Your task to perform on an android device: Check the best rated table lamp on Crate and Barrel Image 0: 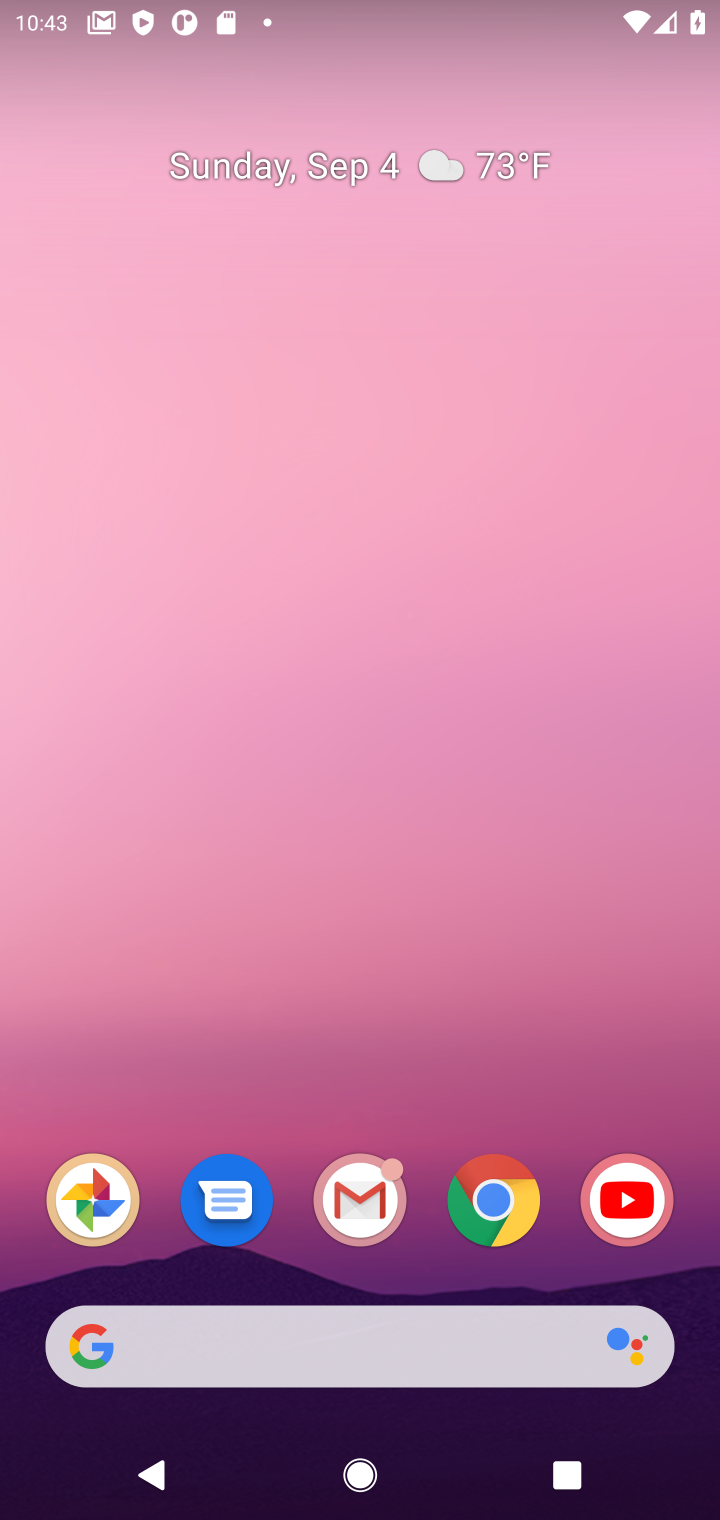
Step 0: drag from (397, 1290) to (476, 397)
Your task to perform on an android device: Check the best rated table lamp on Crate and Barrel Image 1: 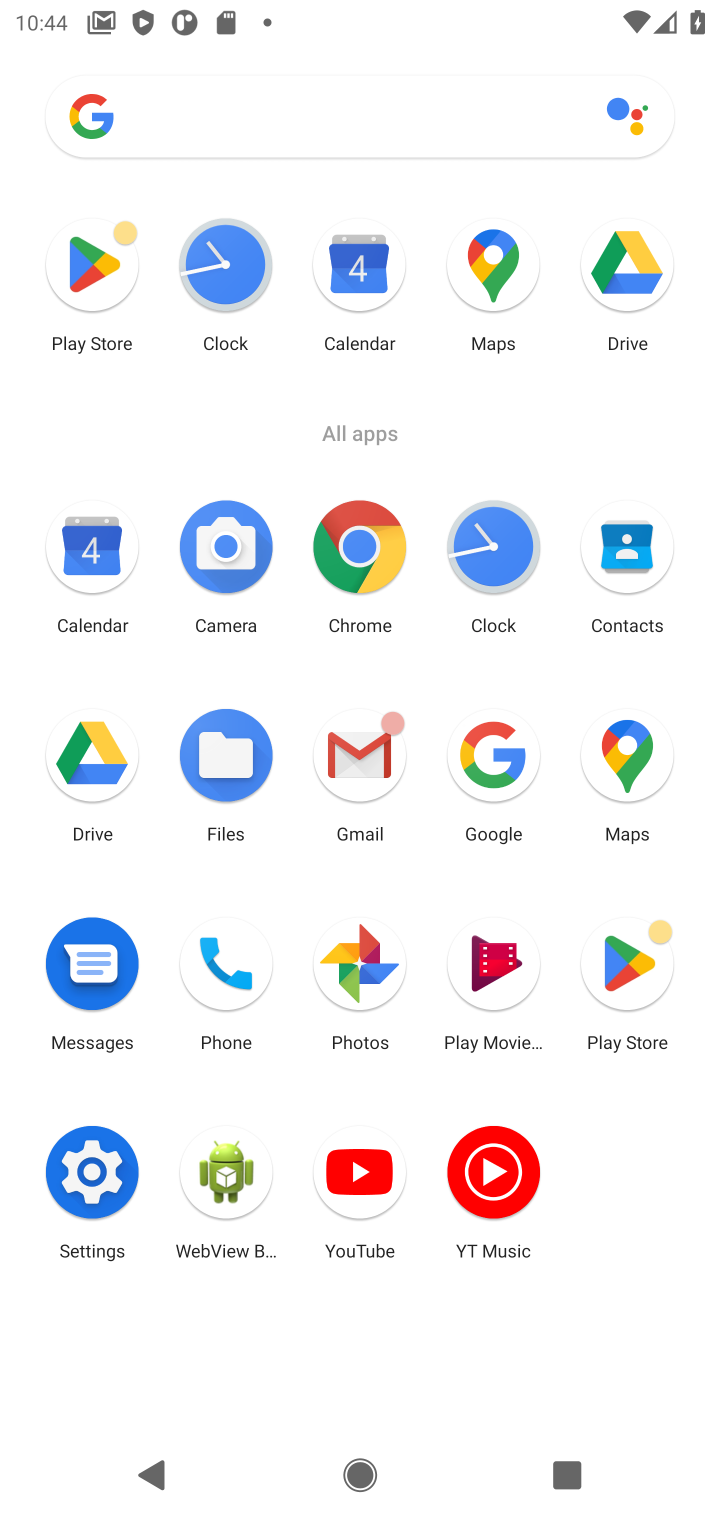
Step 1: click (365, 577)
Your task to perform on an android device: Check the best rated table lamp on Crate and Barrel Image 2: 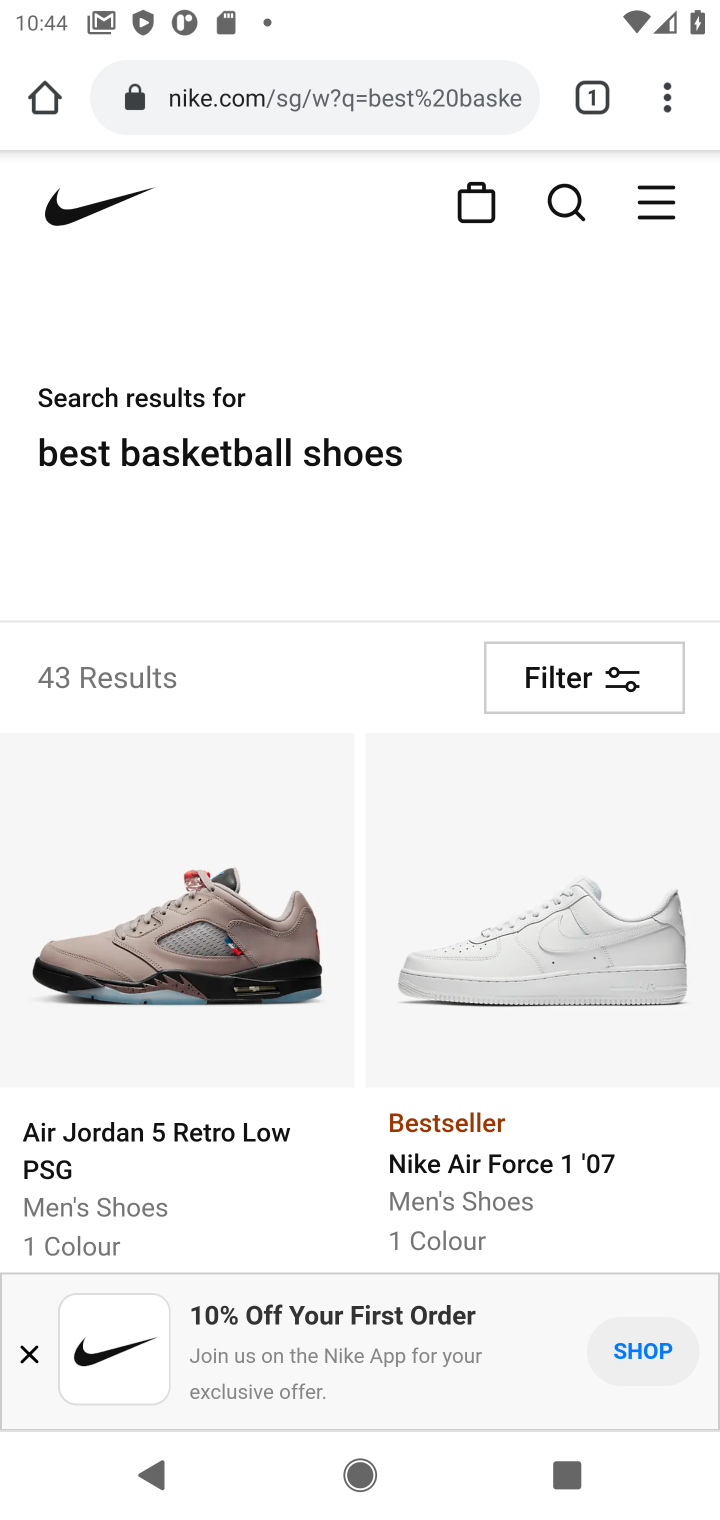
Step 2: click (244, 101)
Your task to perform on an android device: Check the best rated table lamp on Crate and Barrel Image 3: 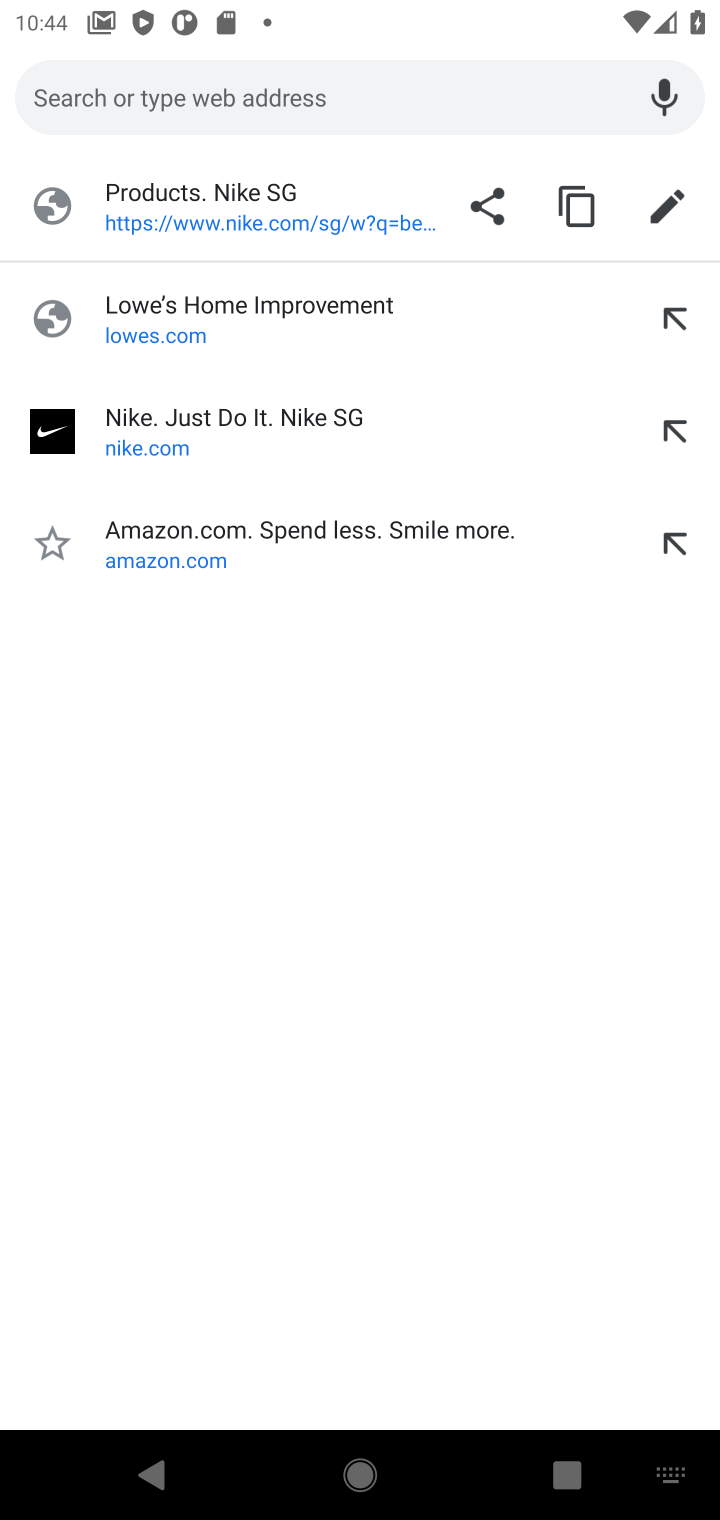
Step 3: type "crate and barrel"
Your task to perform on an android device: Check the best rated table lamp on Crate and Barrel Image 4: 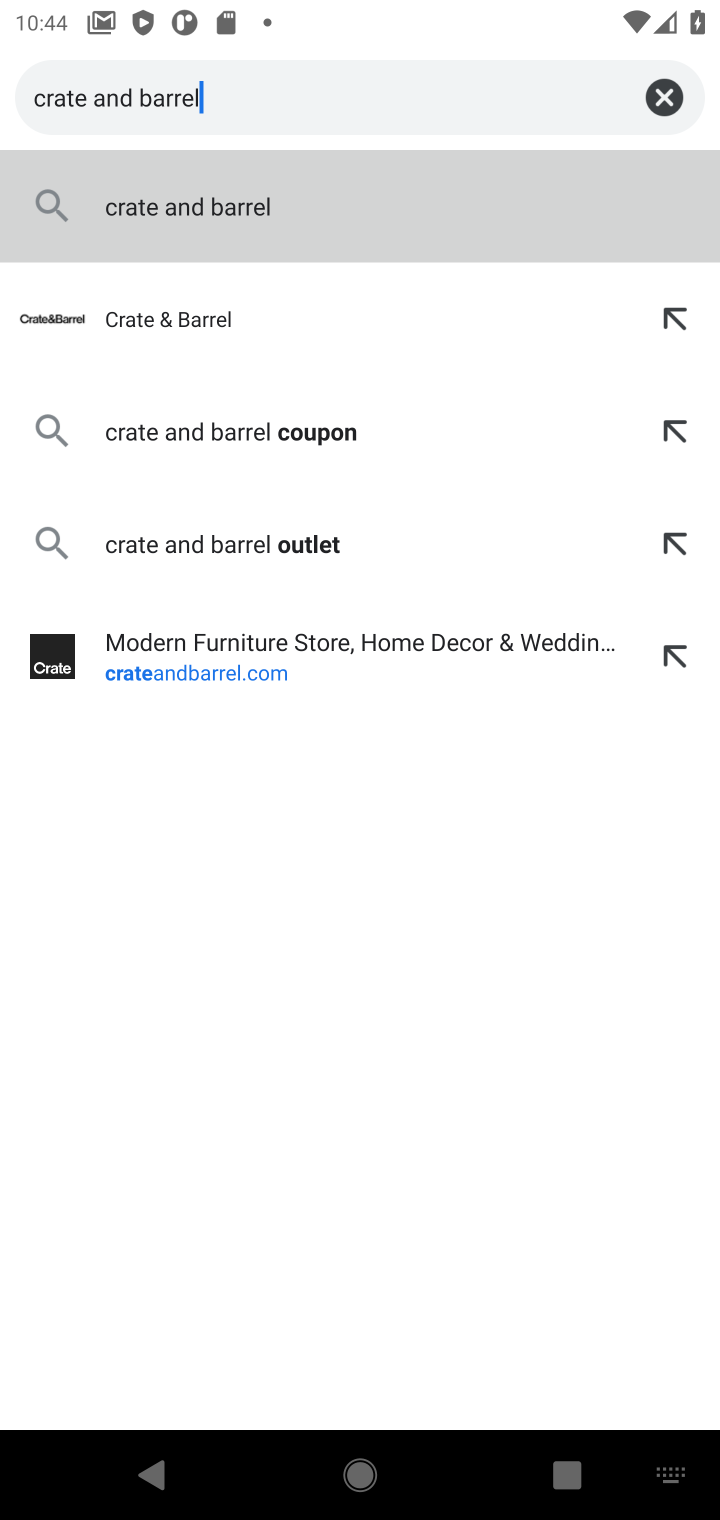
Step 4: click (520, 320)
Your task to perform on an android device: Check the best rated table lamp on Crate and Barrel Image 5: 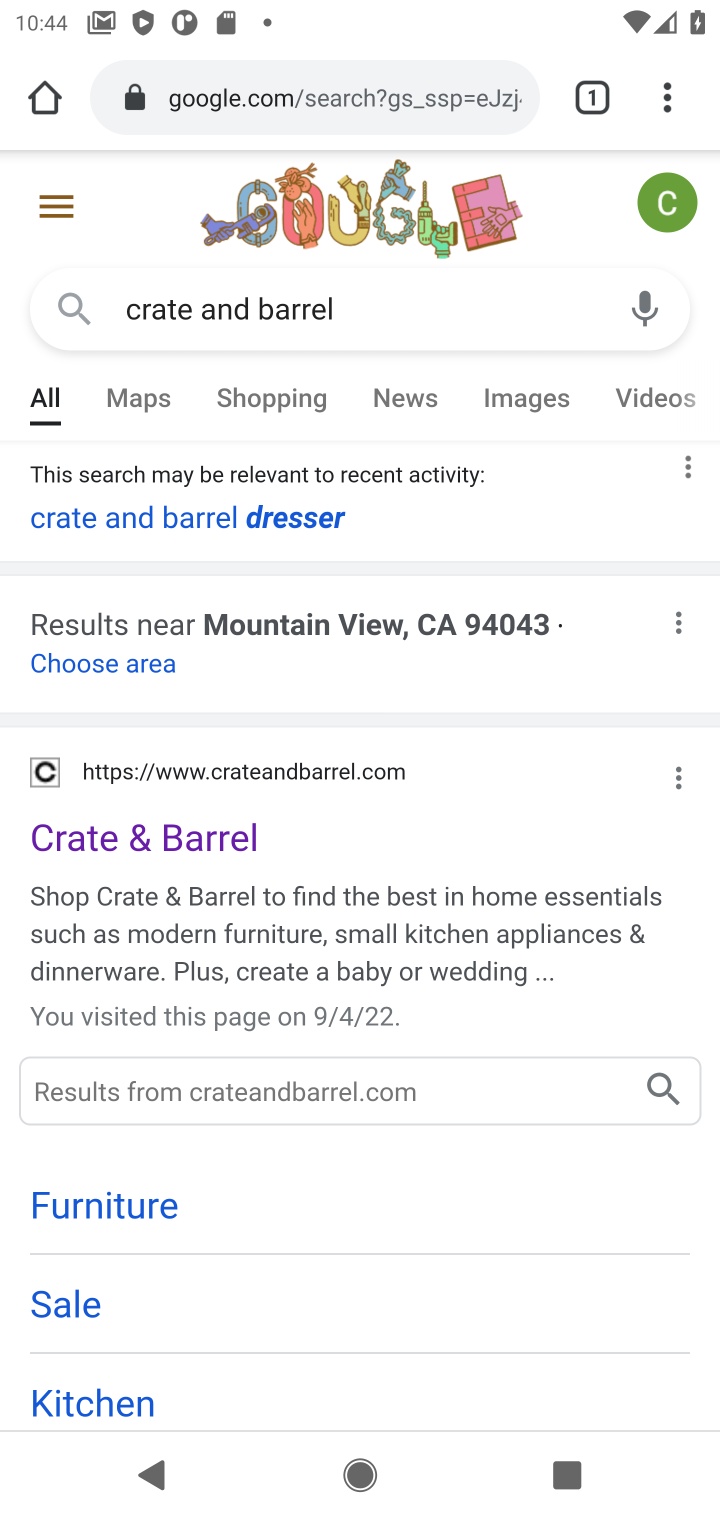
Step 5: click (219, 830)
Your task to perform on an android device: Check the best rated table lamp on Crate and Barrel Image 6: 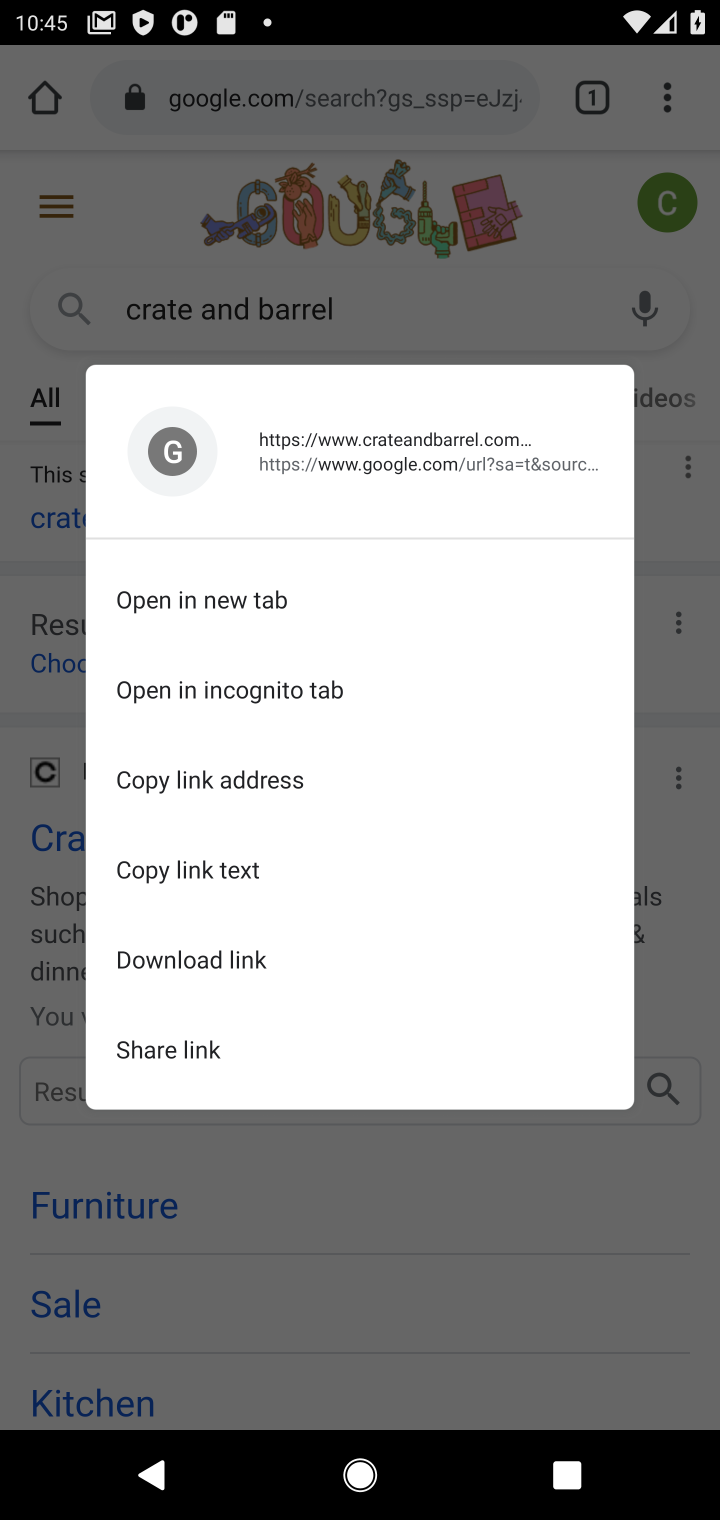
Step 6: click (61, 527)
Your task to perform on an android device: Check the best rated table lamp on Crate and Barrel Image 7: 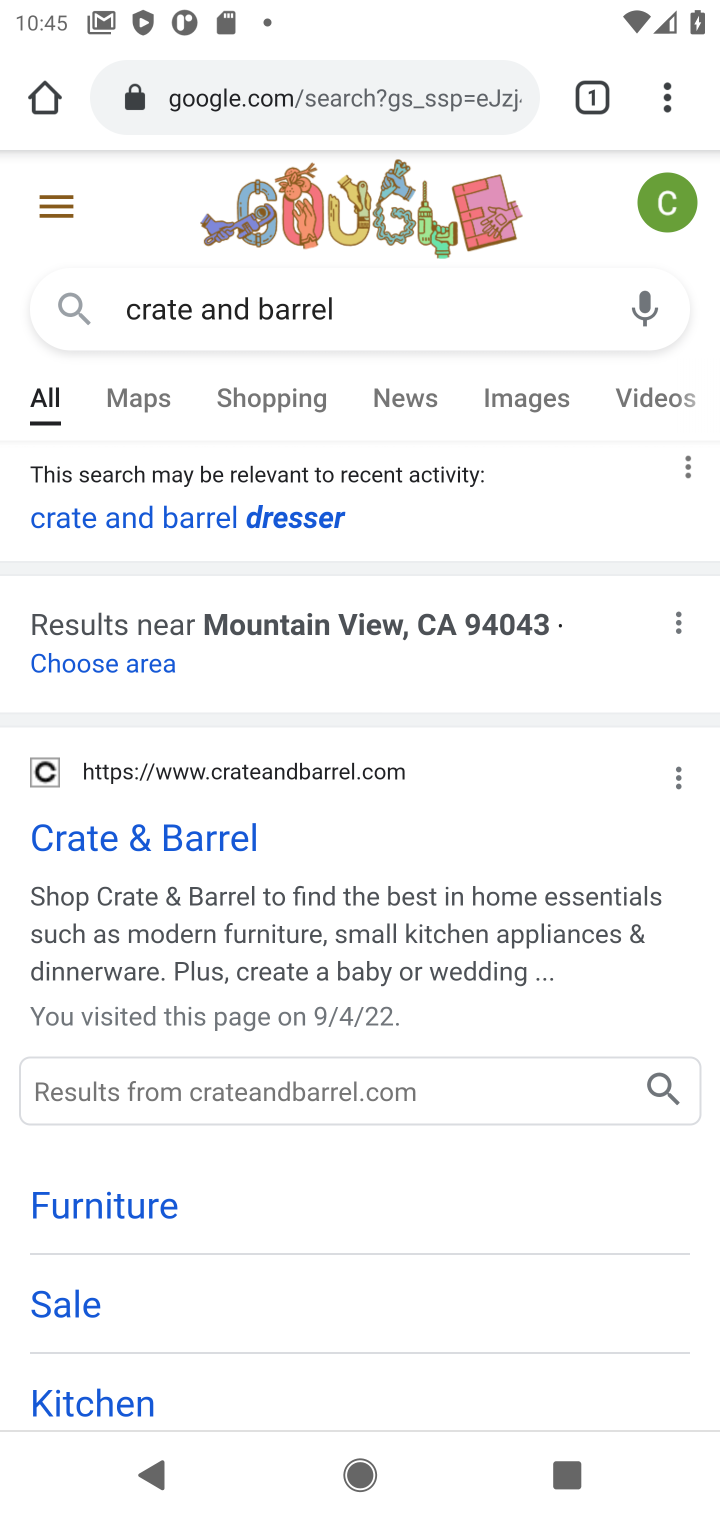
Step 7: click (177, 848)
Your task to perform on an android device: Check the best rated table lamp on Crate and Barrel Image 8: 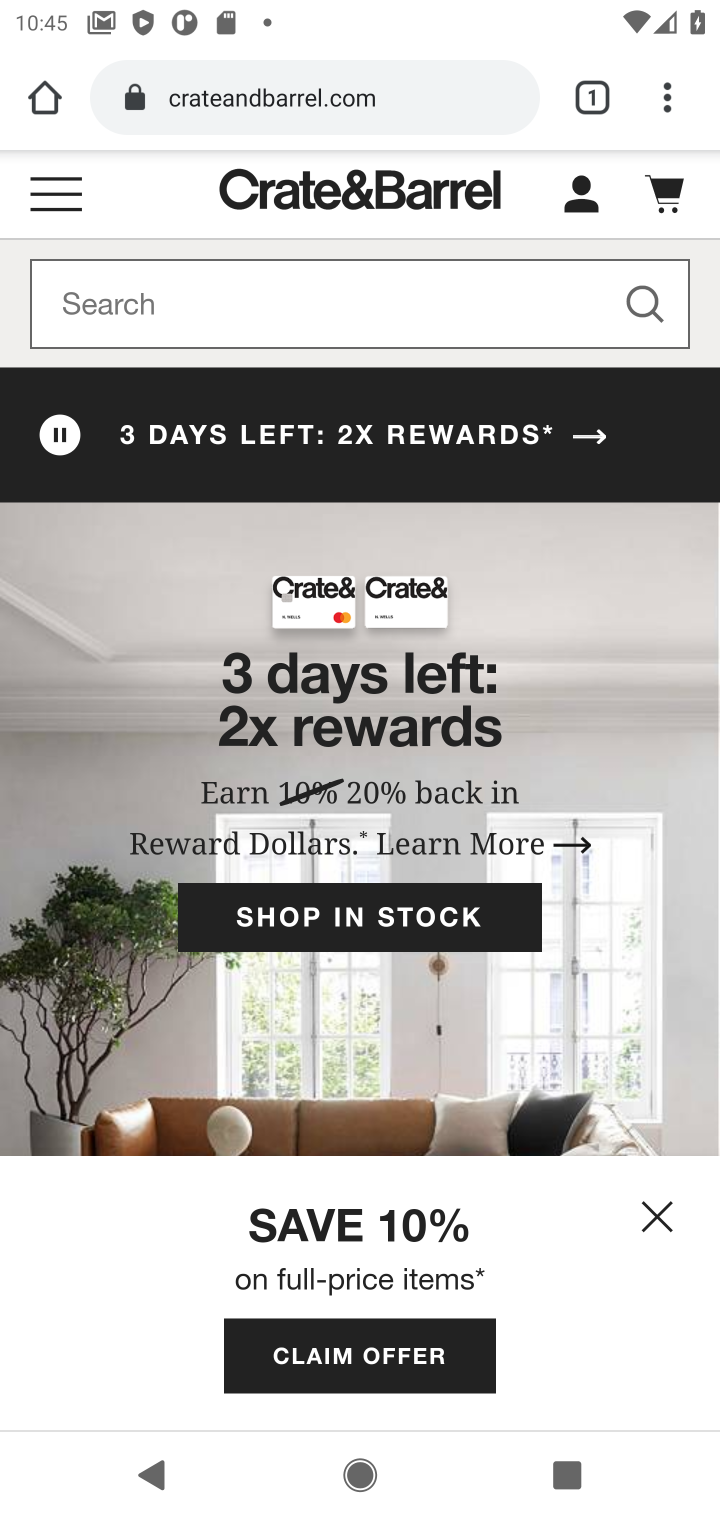
Step 8: click (408, 319)
Your task to perform on an android device: Check the best rated table lamp on Crate and Barrel Image 9: 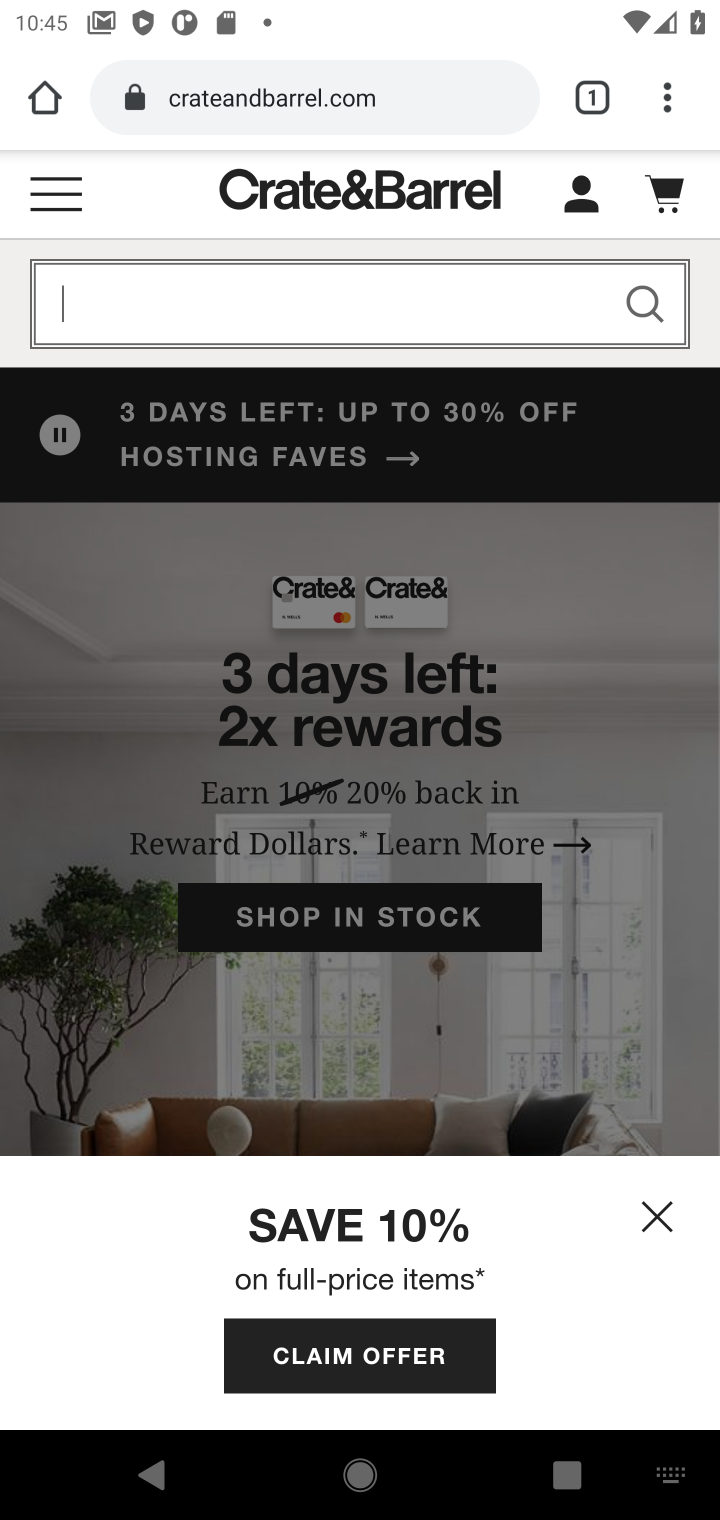
Step 9: click (662, 1218)
Your task to perform on an android device: Check the best rated table lamp on Crate and Barrel Image 10: 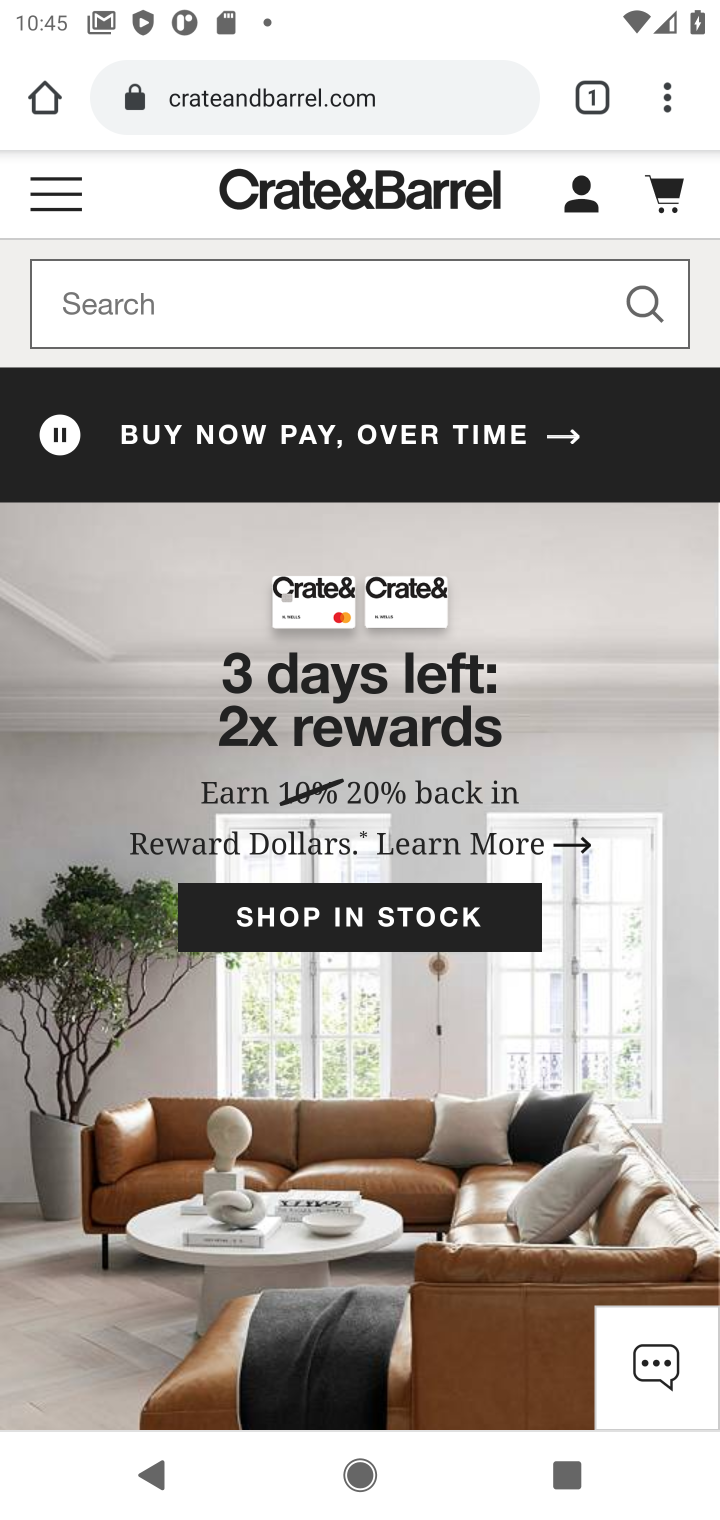
Step 10: click (551, 303)
Your task to perform on an android device: Check the best rated table lamp on Crate and Barrel Image 11: 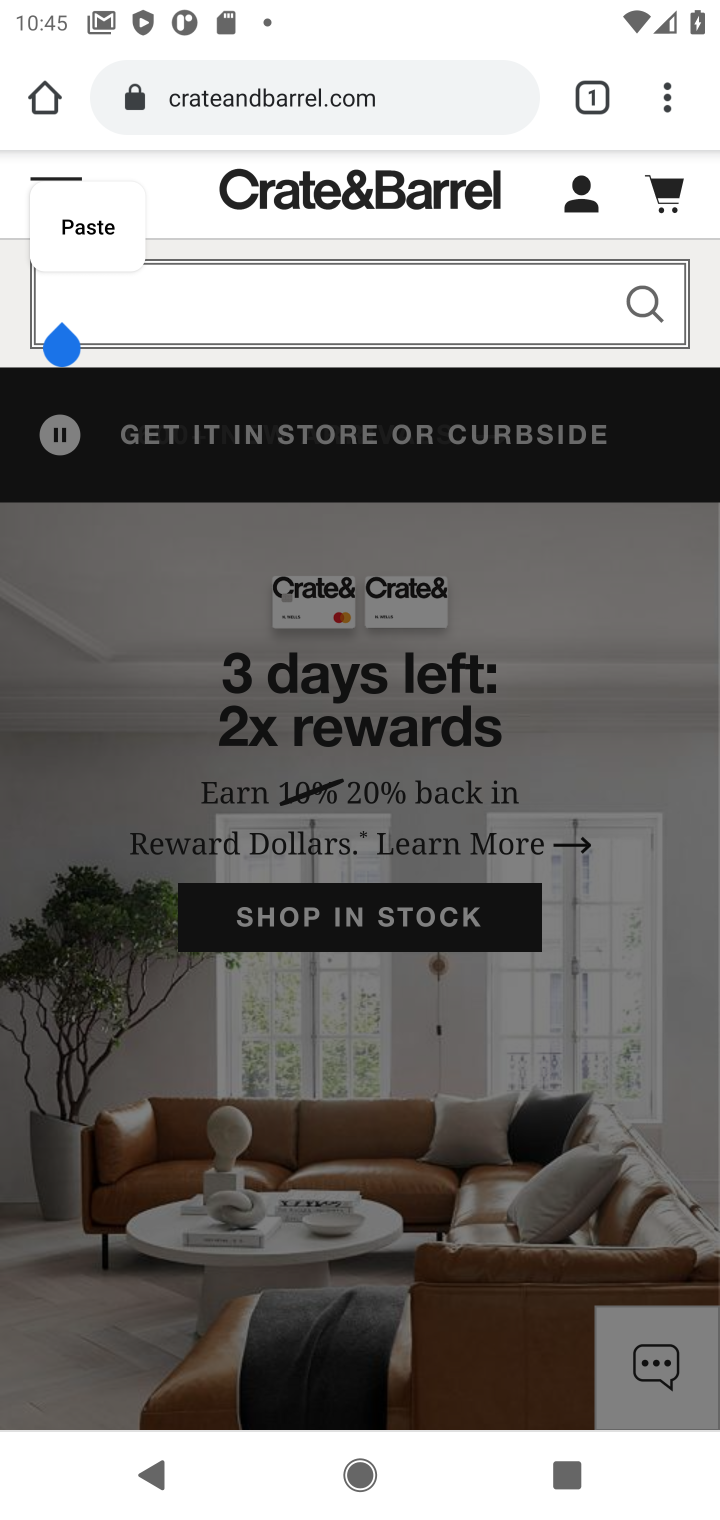
Step 11: type "best rated table lamps"
Your task to perform on an android device: Check the best rated table lamp on Crate and Barrel Image 12: 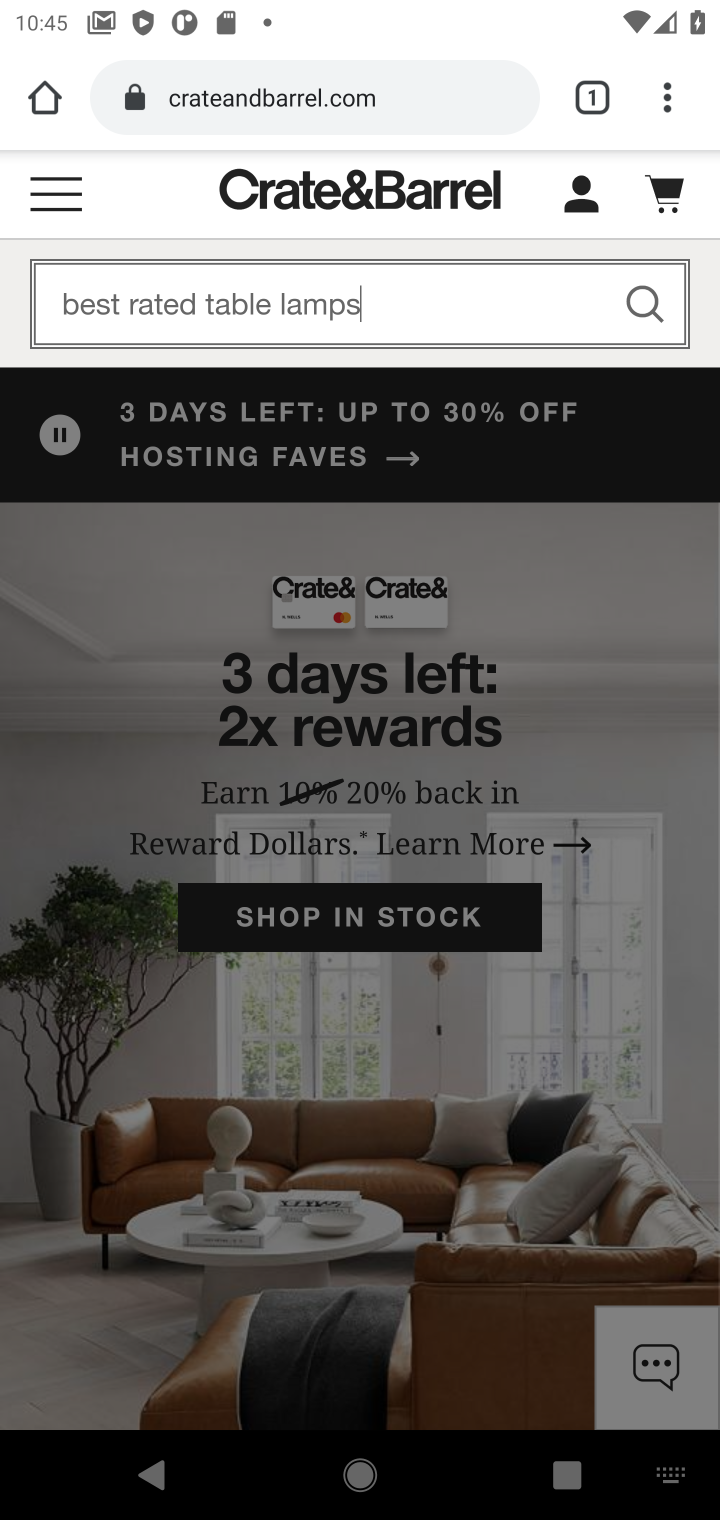
Step 12: click (640, 308)
Your task to perform on an android device: Check the best rated table lamp on Crate and Barrel Image 13: 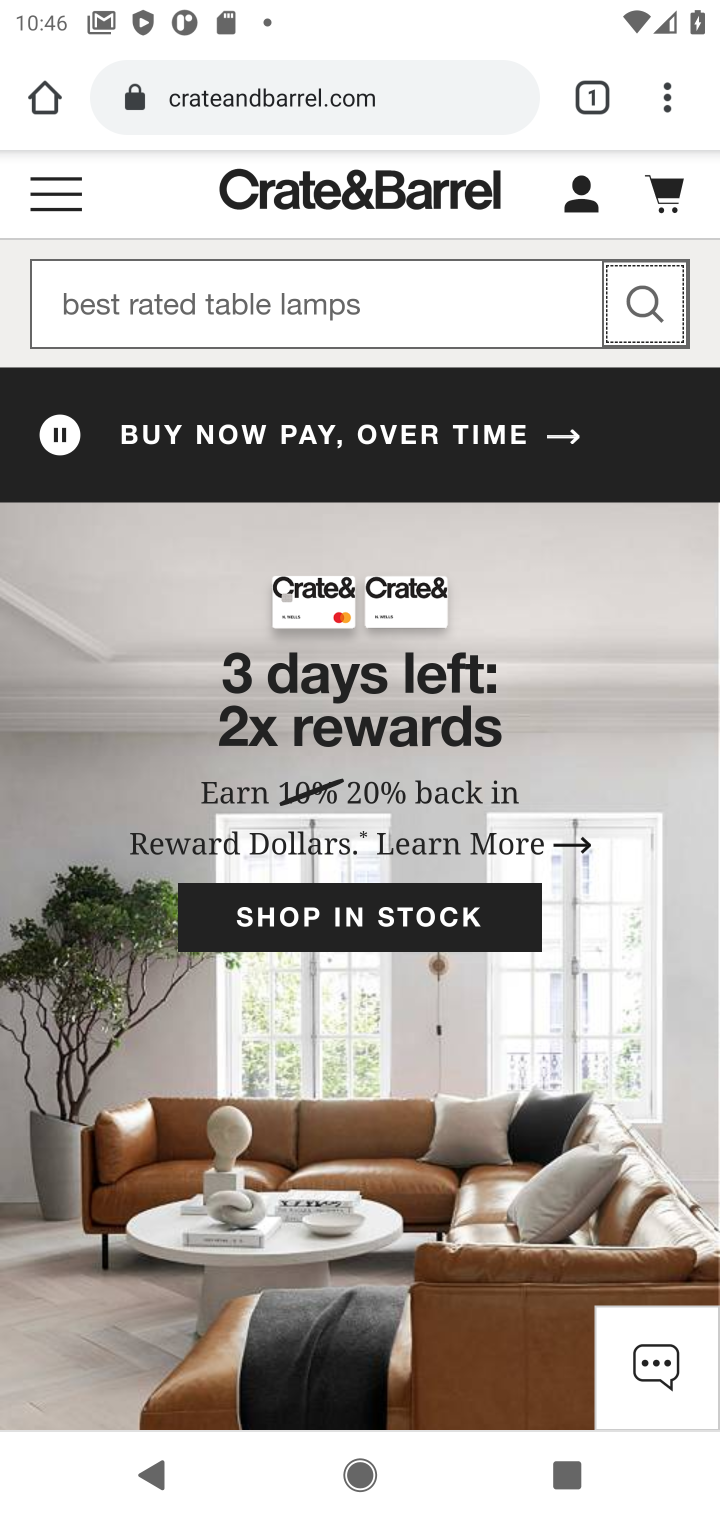
Step 13: click (640, 308)
Your task to perform on an android device: Check the best rated table lamp on Crate and Barrel Image 14: 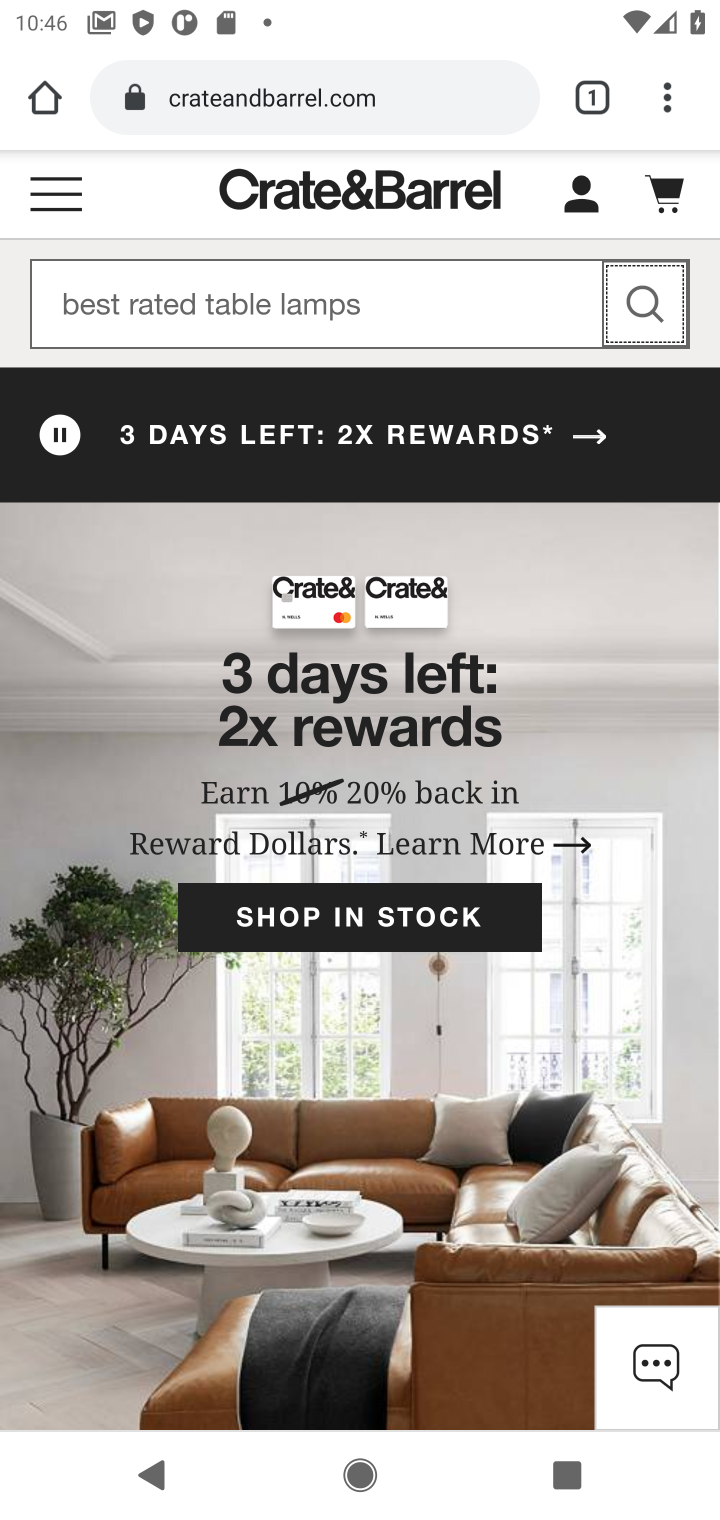
Step 14: click (639, 303)
Your task to perform on an android device: Check the best rated table lamp on Crate and Barrel Image 15: 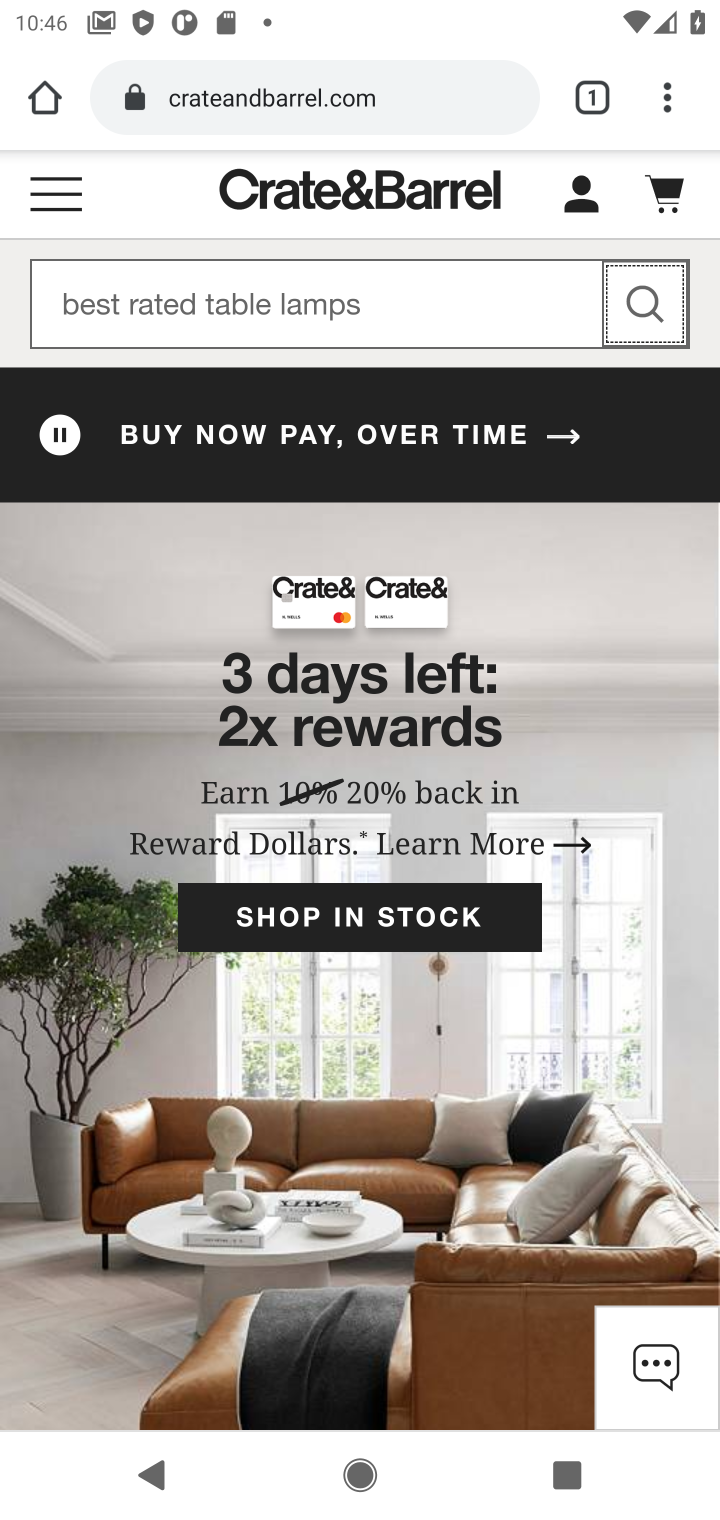
Step 15: click (639, 303)
Your task to perform on an android device: Check the best rated table lamp on Crate and Barrel Image 16: 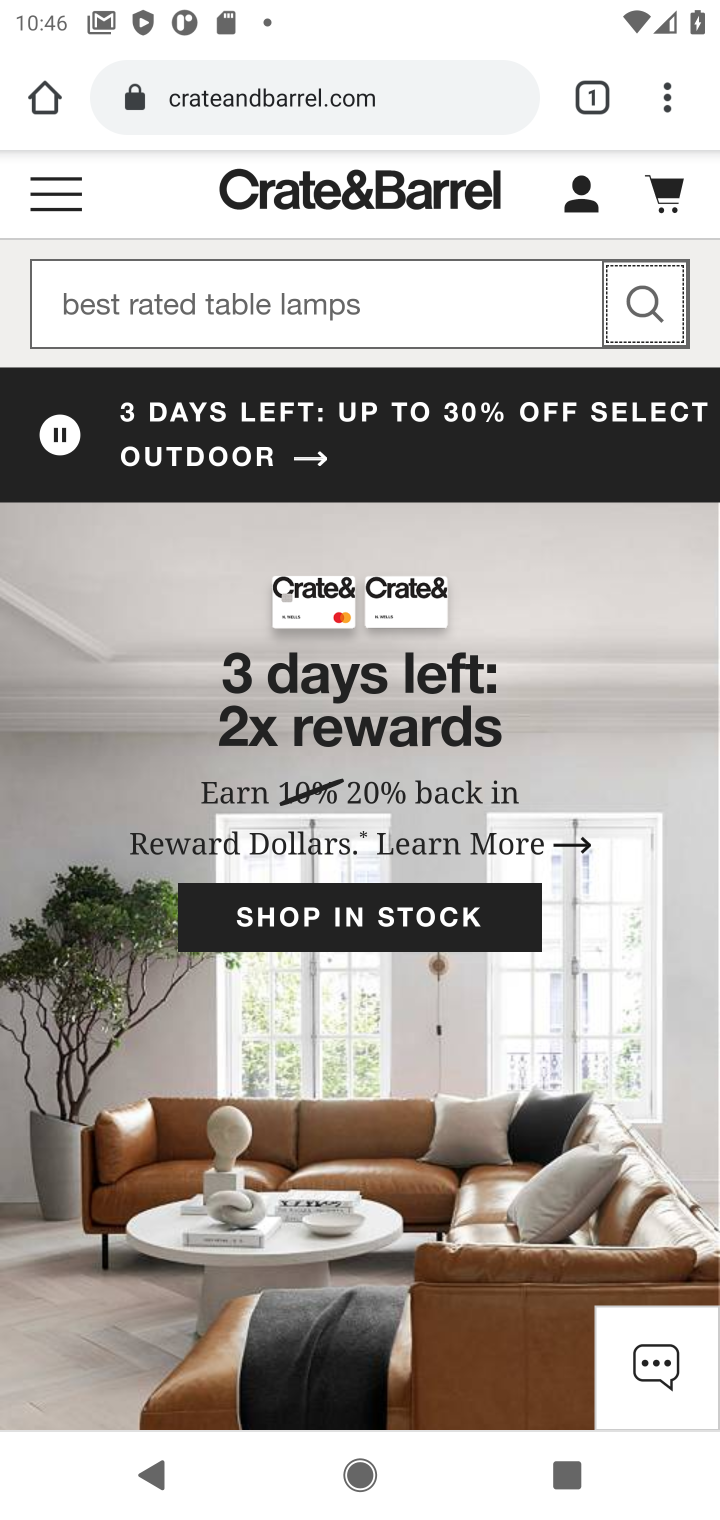
Step 16: click (655, 321)
Your task to perform on an android device: Check the best rated table lamp on Crate and Barrel Image 17: 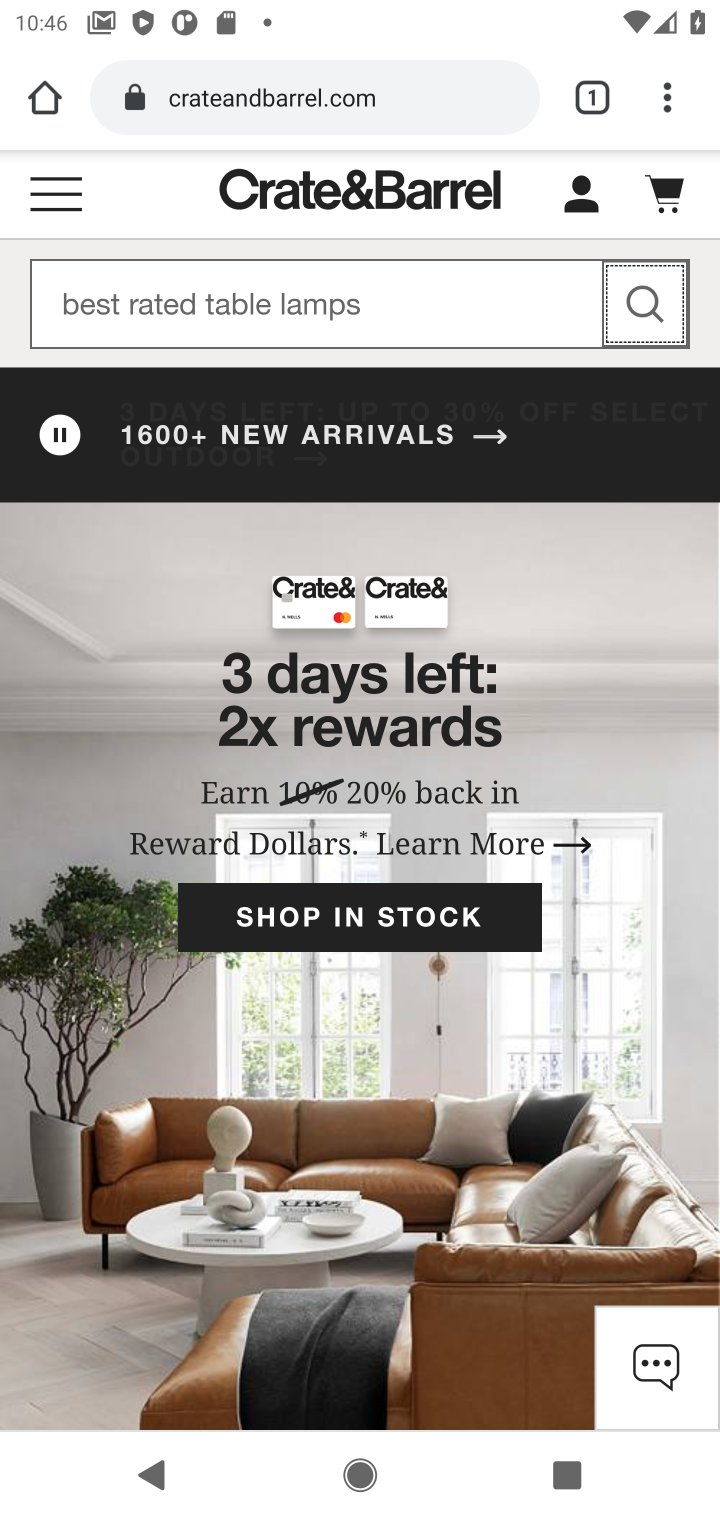
Step 17: click (655, 321)
Your task to perform on an android device: Check the best rated table lamp on Crate and Barrel Image 18: 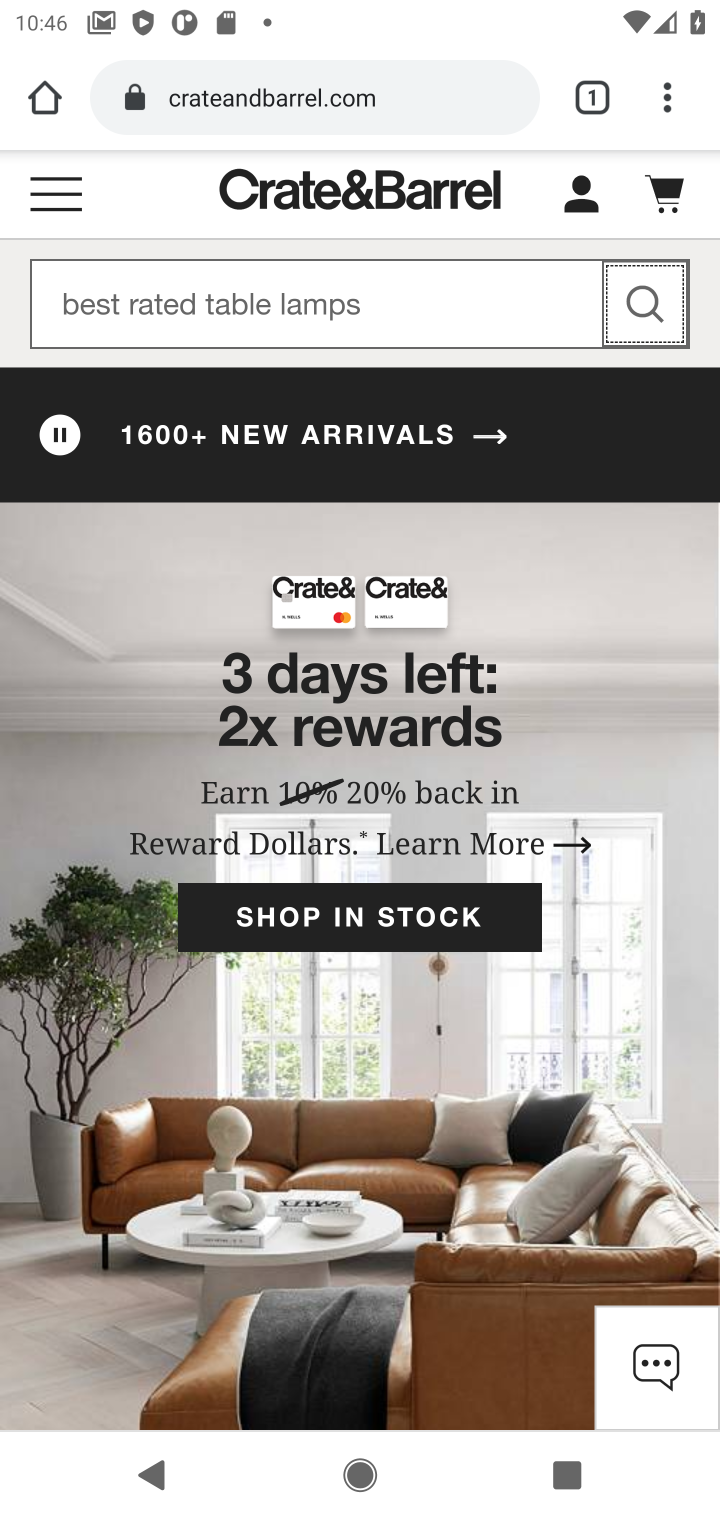
Step 18: click (655, 321)
Your task to perform on an android device: Check the best rated table lamp on Crate and Barrel Image 19: 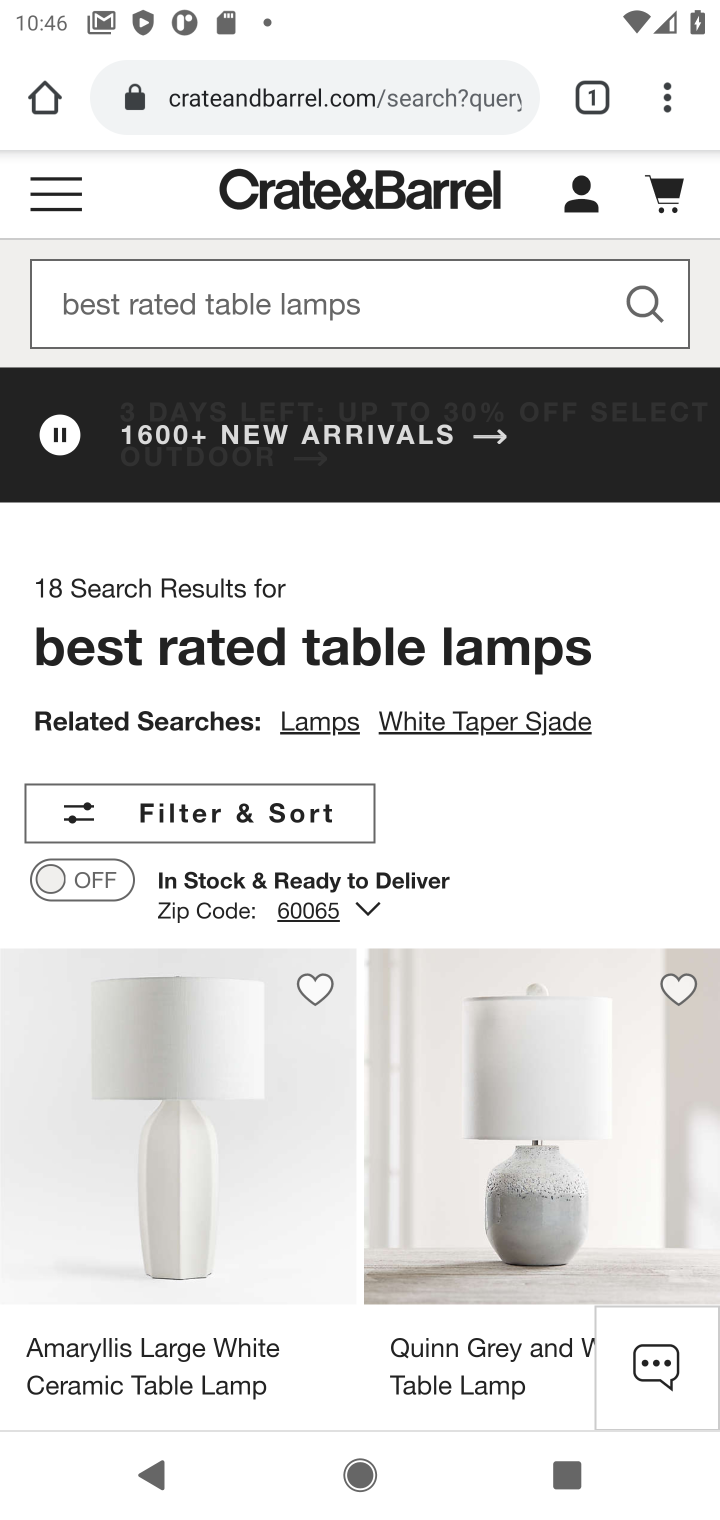
Step 19: task complete